Your task to perform on an android device: Open Google Image 0: 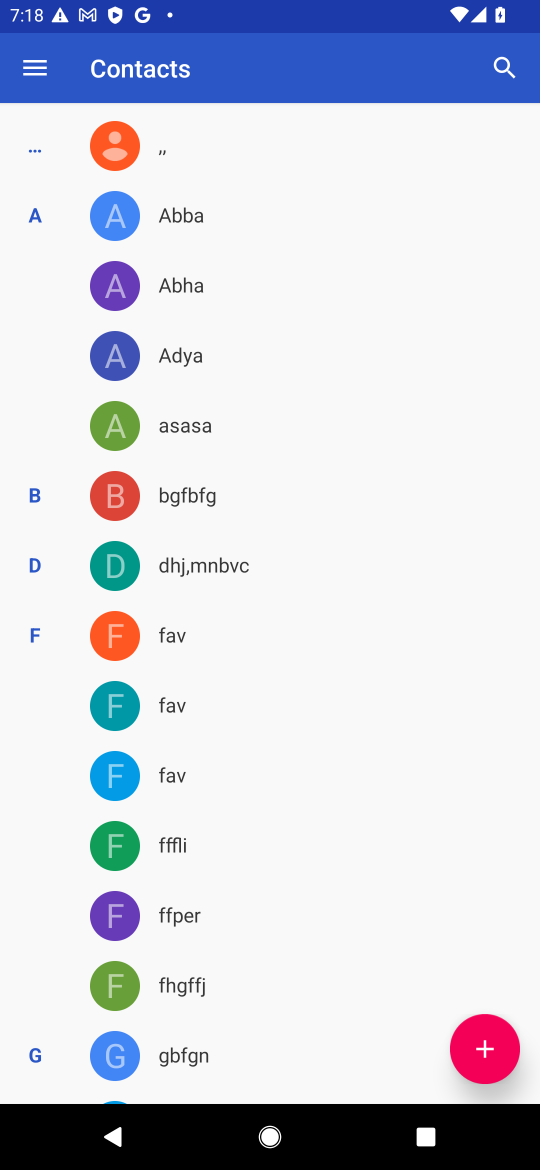
Step 0: press home button
Your task to perform on an android device: Open Google Image 1: 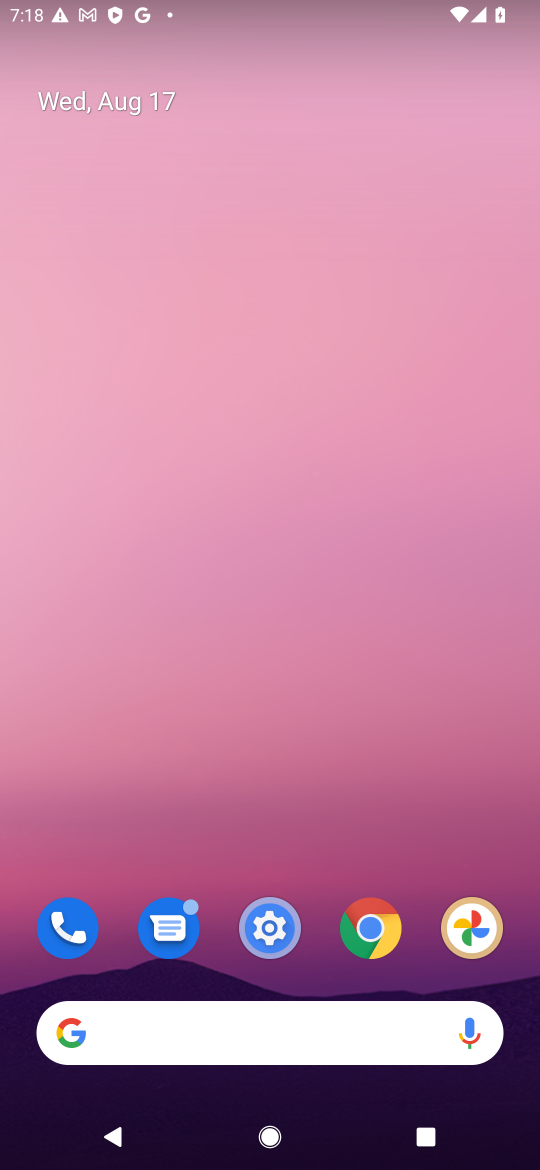
Step 1: drag from (232, 1035) to (324, 43)
Your task to perform on an android device: Open Google Image 2: 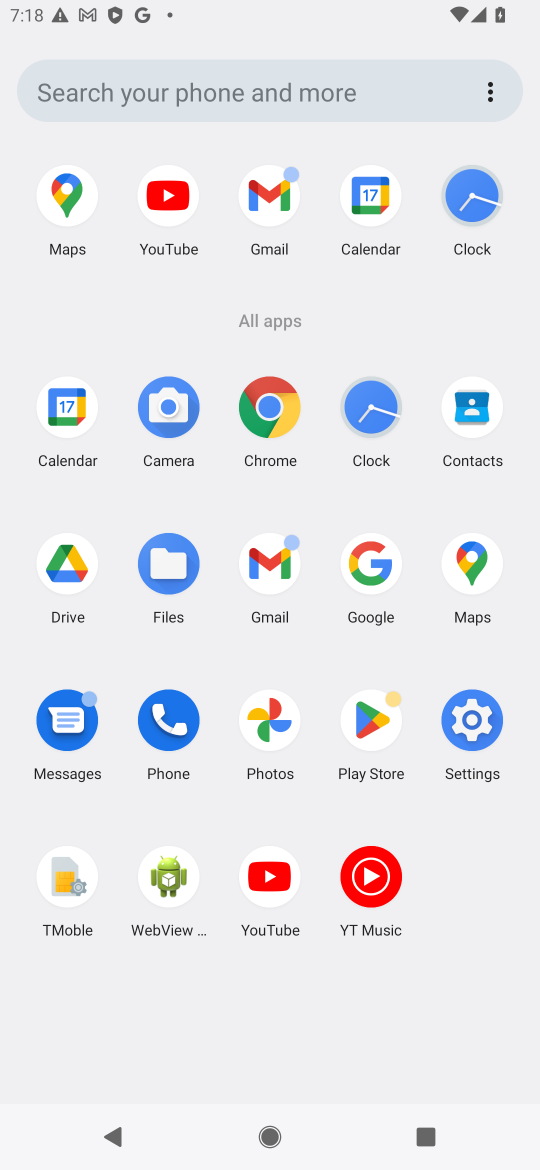
Step 2: click (366, 557)
Your task to perform on an android device: Open Google Image 3: 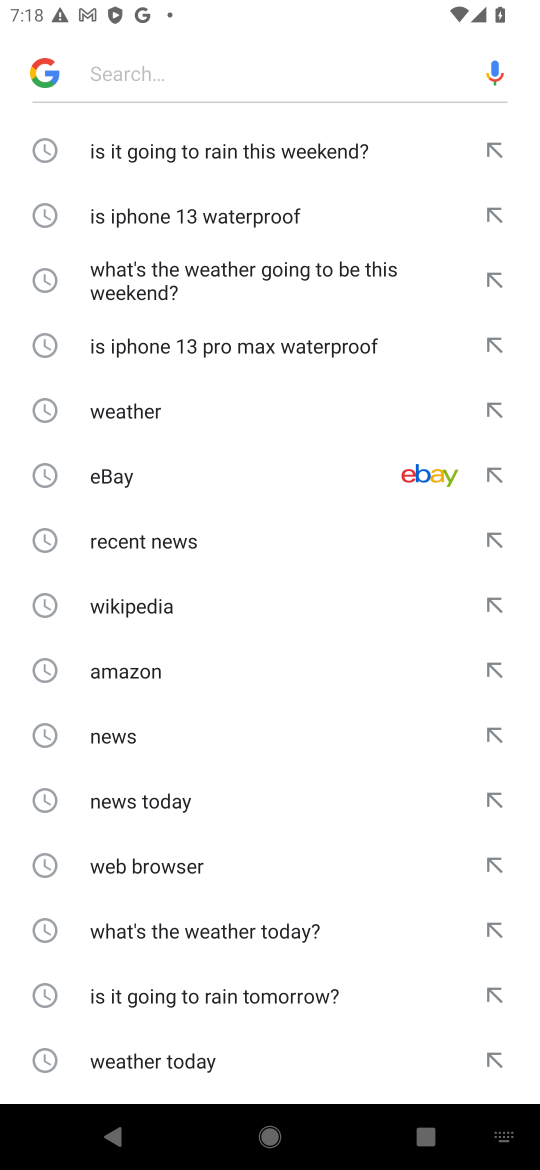
Step 3: task complete